Your task to perform on an android device: toggle show notifications on the lock screen Image 0: 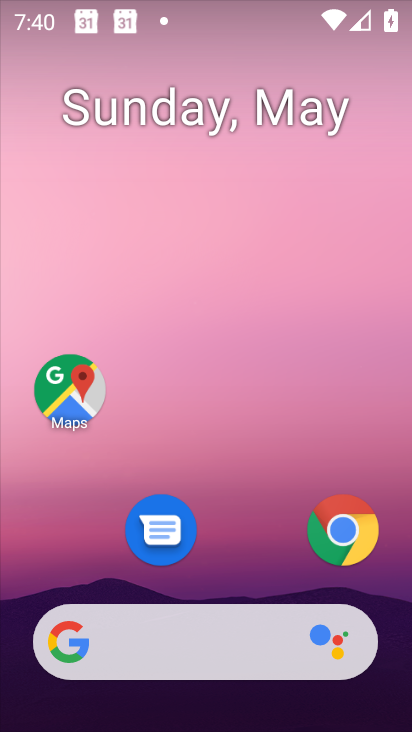
Step 0: drag from (241, 596) to (263, 5)
Your task to perform on an android device: toggle show notifications on the lock screen Image 1: 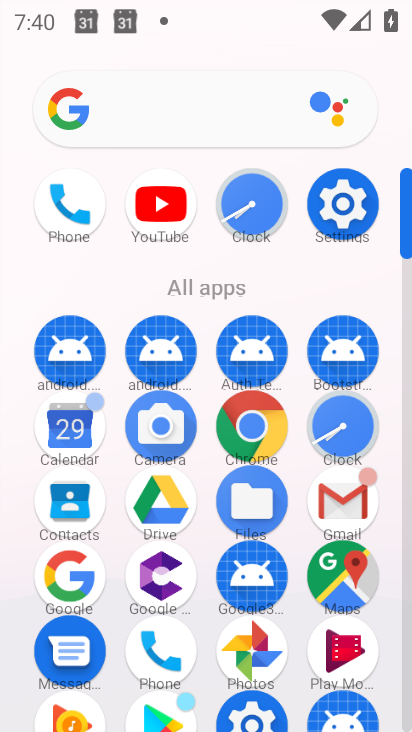
Step 1: click (347, 201)
Your task to perform on an android device: toggle show notifications on the lock screen Image 2: 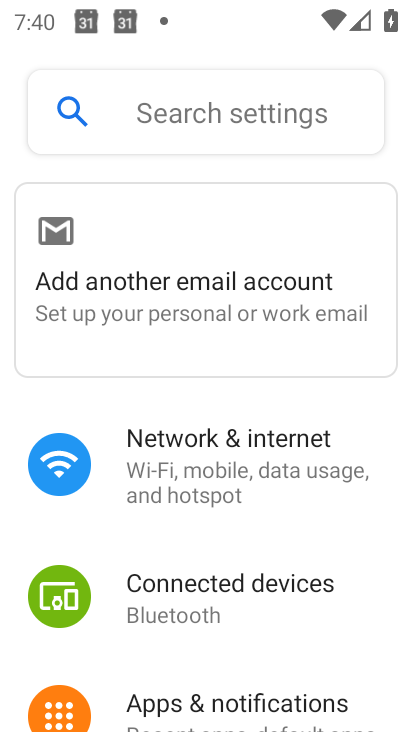
Step 2: drag from (207, 575) to (145, 259)
Your task to perform on an android device: toggle show notifications on the lock screen Image 3: 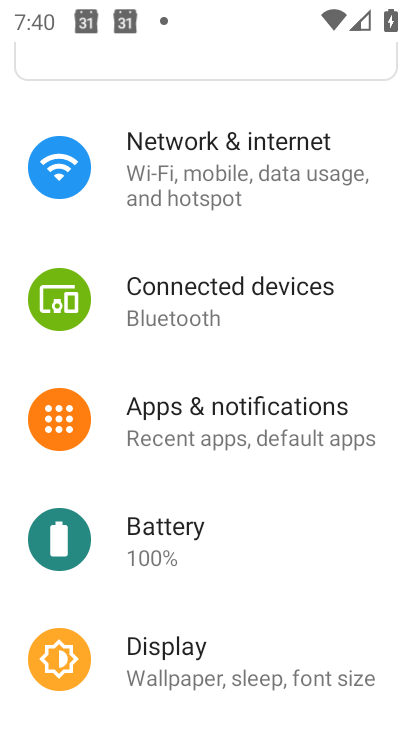
Step 3: click (197, 398)
Your task to perform on an android device: toggle show notifications on the lock screen Image 4: 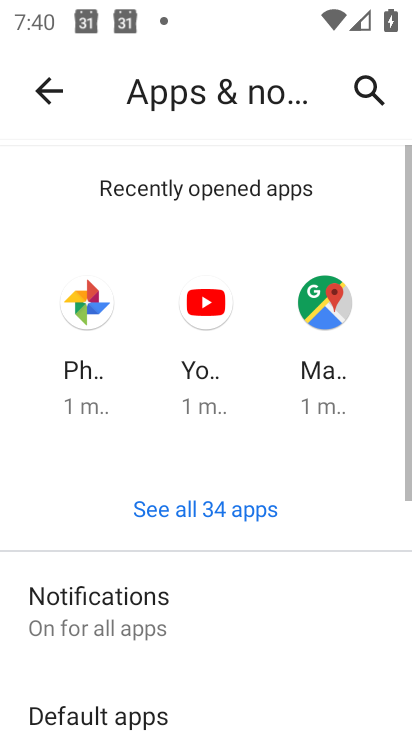
Step 4: click (163, 601)
Your task to perform on an android device: toggle show notifications on the lock screen Image 5: 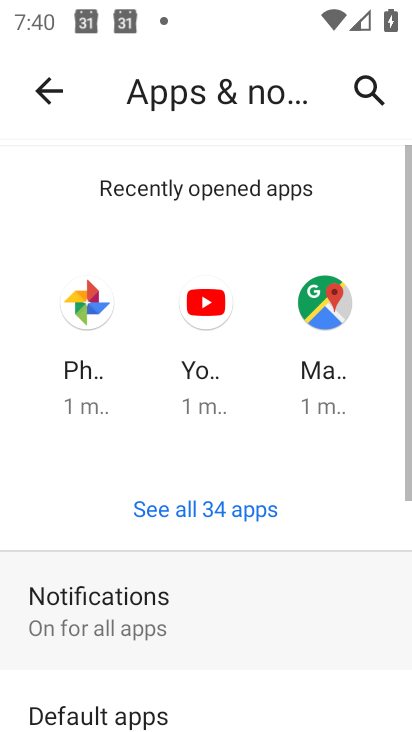
Step 5: drag from (163, 600) to (136, 71)
Your task to perform on an android device: toggle show notifications on the lock screen Image 6: 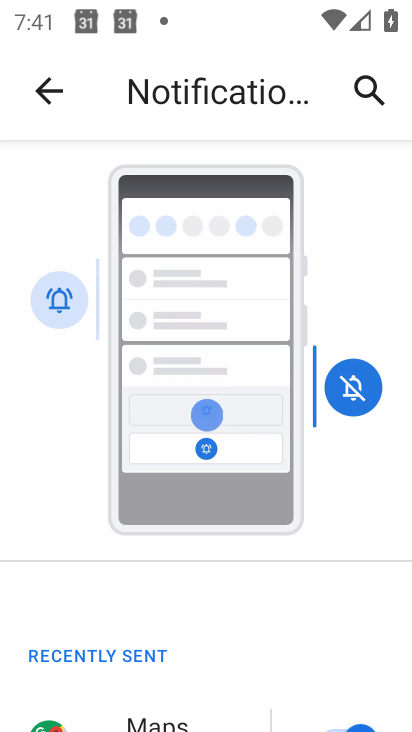
Step 6: drag from (216, 622) to (154, 71)
Your task to perform on an android device: toggle show notifications on the lock screen Image 7: 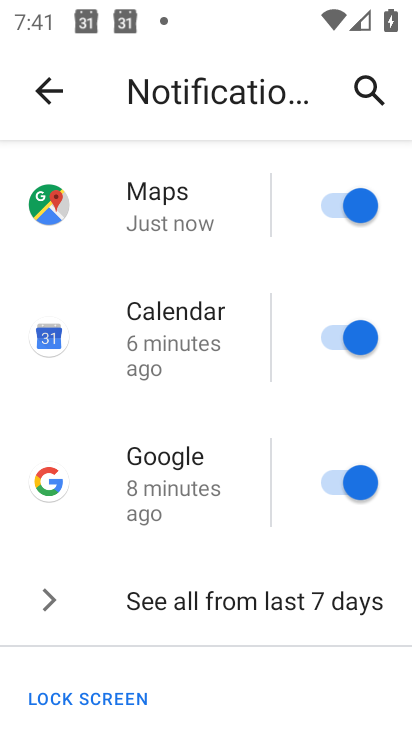
Step 7: drag from (179, 626) to (157, 164)
Your task to perform on an android device: toggle show notifications on the lock screen Image 8: 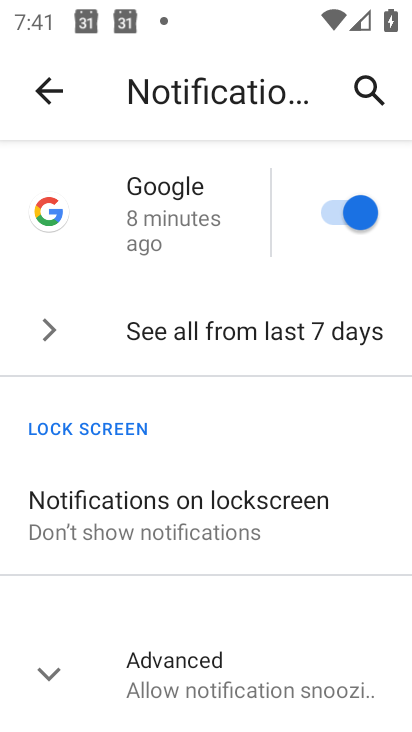
Step 8: click (175, 540)
Your task to perform on an android device: toggle show notifications on the lock screen Image 9: 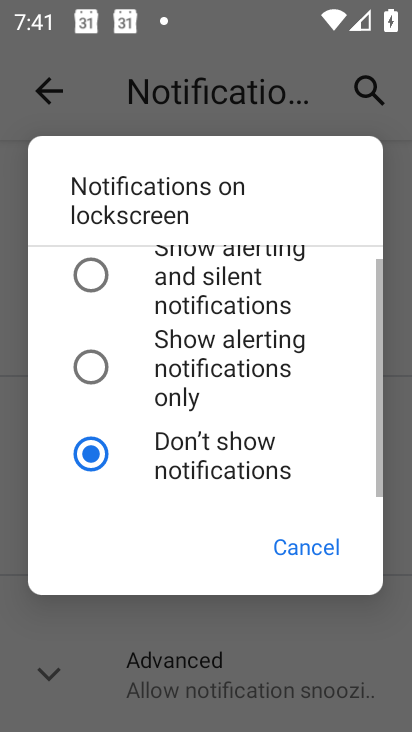
Step 9: click (120, 278)
Your task to perform on an android device: toggle show notifications on the lock screen Image 10: 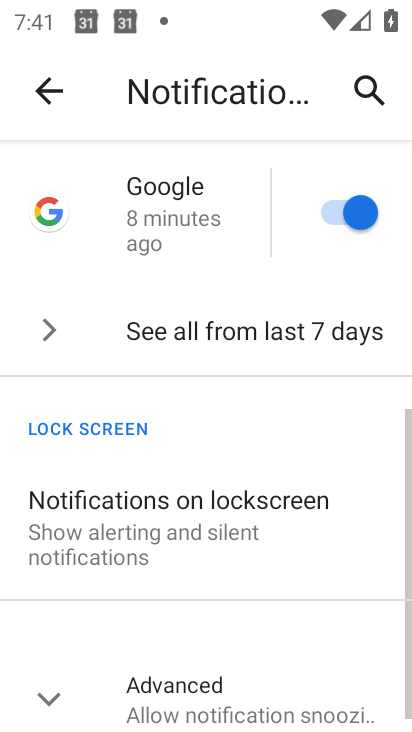
Step 10: task complete